Your task to perform on an android device: Open notification settings Image 0: 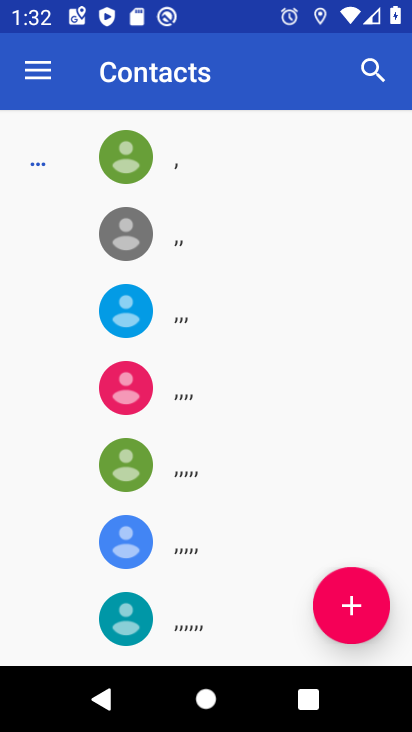
Step 0: press home button
Your task to perform on an android device: Open notification settings Image 1: 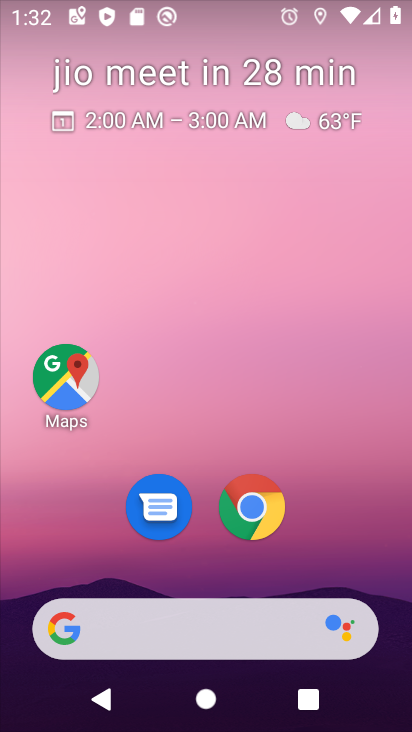
Step 1: drag from (190, 413) to (224, 4)
Your task to perform on an android device: Open notification settings Image 2: 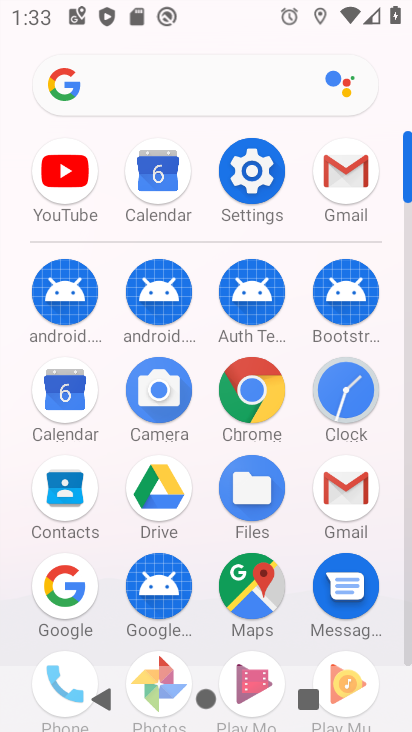
Step 2: click (258, 167)
Your task to perform on an android device: Open notification settings Image 3: 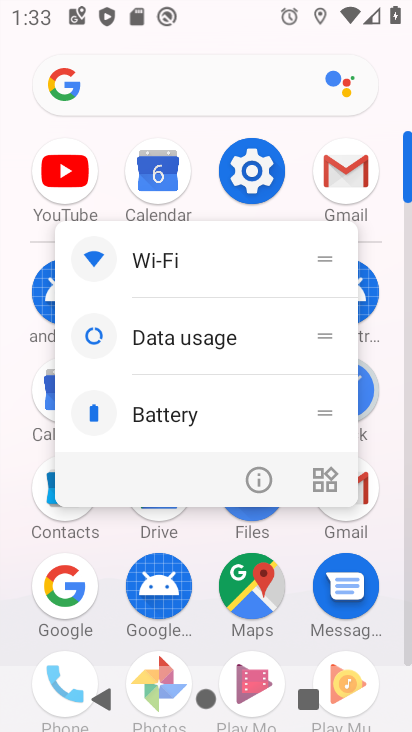
Step 3: click (258, 166)
Your task to perform on an android device: Open notification settings Image 4: 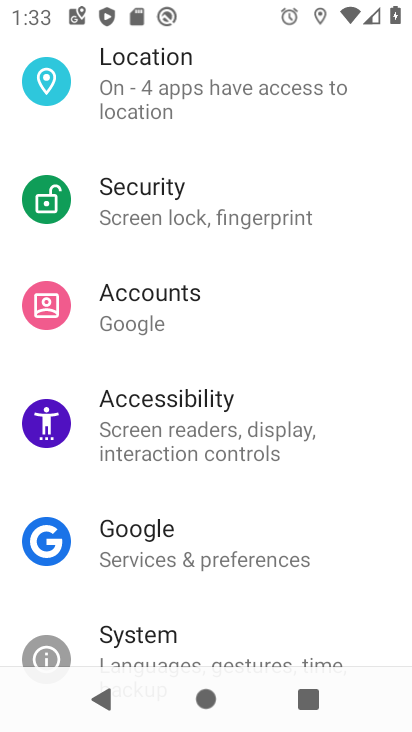
Step 4: drag from (249, 165) to (266, 598)
Your task to perform on an android device: Open notification settings Image 5: 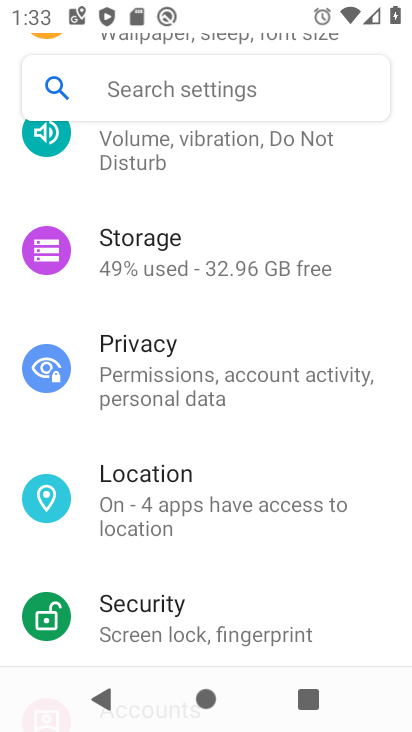
Step 5: drag from (239, 188) to (249, 596)
Your task to perform on an android device: Open notification settings Image 6: 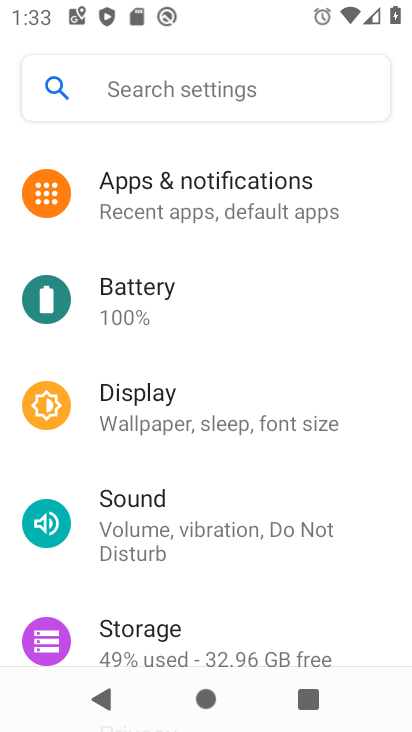
Step 6: click (254, 197)
Your task to perform on an android device: Open notification settings Image 7: 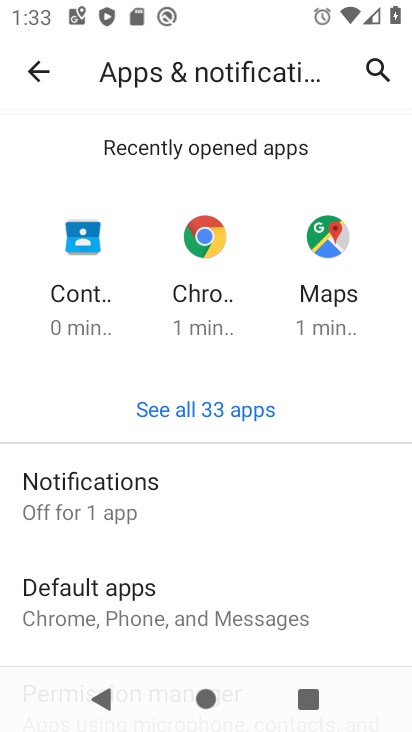
Step 7: click (173, 508)
Your task to perform on an android device: Open notification settings Image 8: 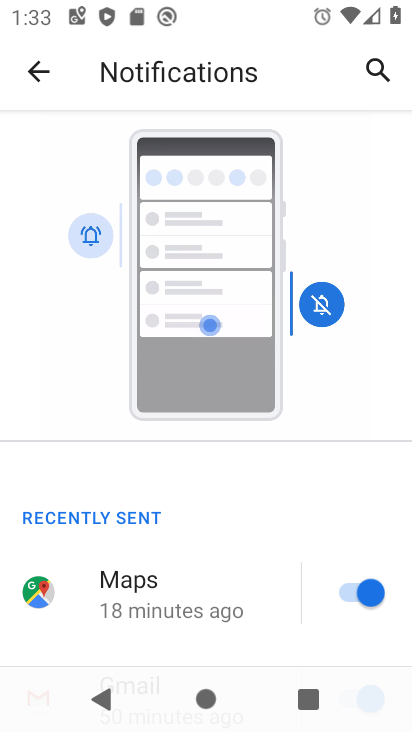
Step 8: task complete